Your task to perform on an android device: set an alarm Image 0: 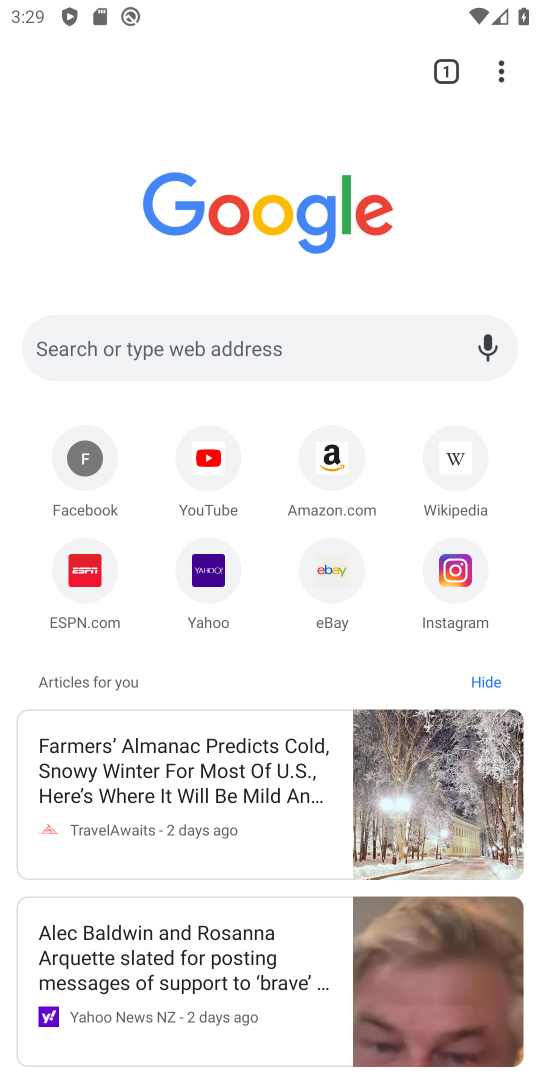
Step 0: press home button
Your task to perform on an android device: set an alarm Image 1: 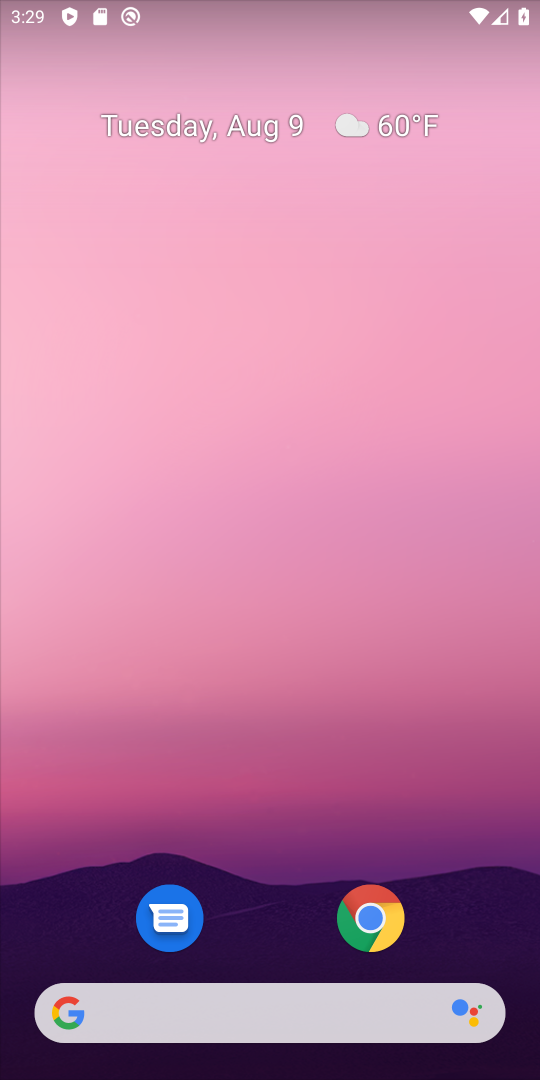
Step 1: drag from (264, 991) to (282, 112)
Your task to perform on an android device: set an alarm Image 2: 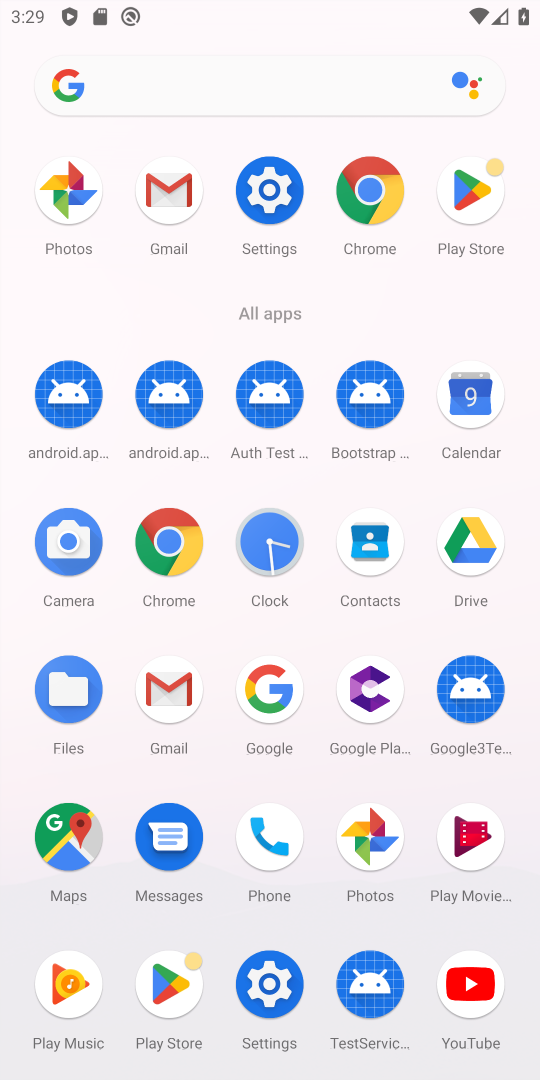
Step 2: click (275, 565)
Your task to perform on an android device: set an alarm Image 3: 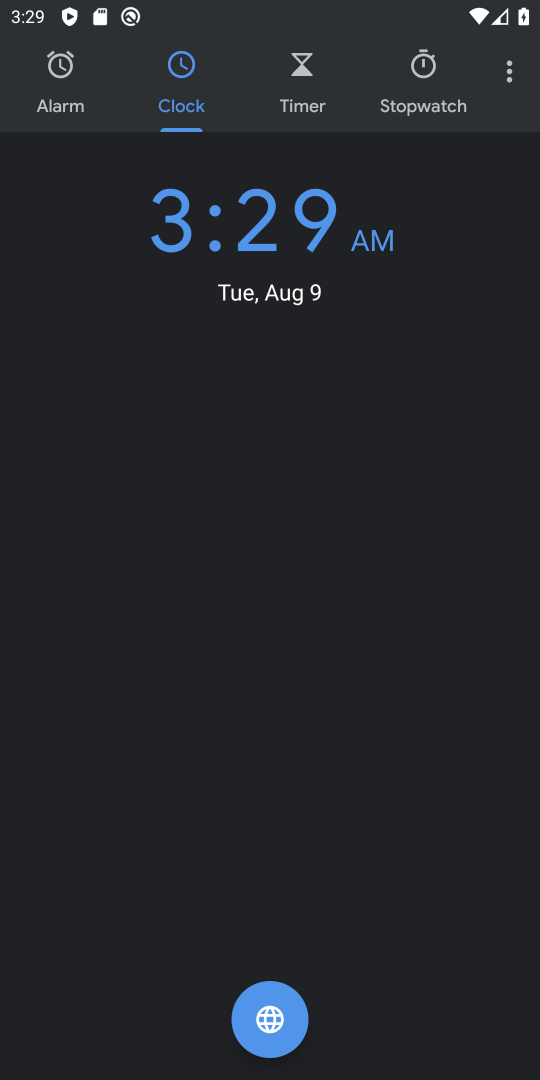
Step 3: click (63, 93)
Your task to perform on an android device: set an alarm Image 4: 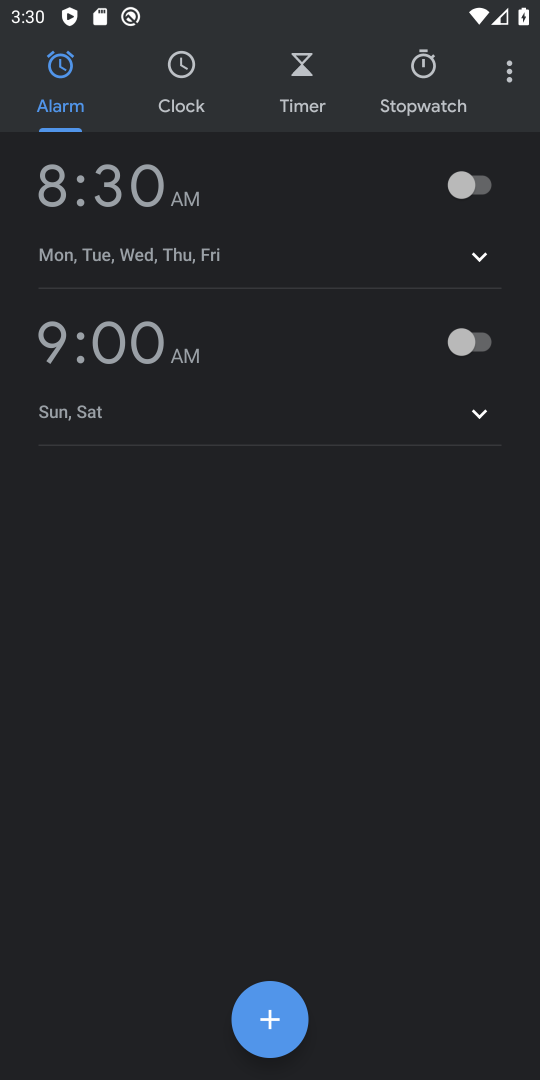
Step 4: click (263, 981)
Your task to perform on an android device: set an alarm Image 5: 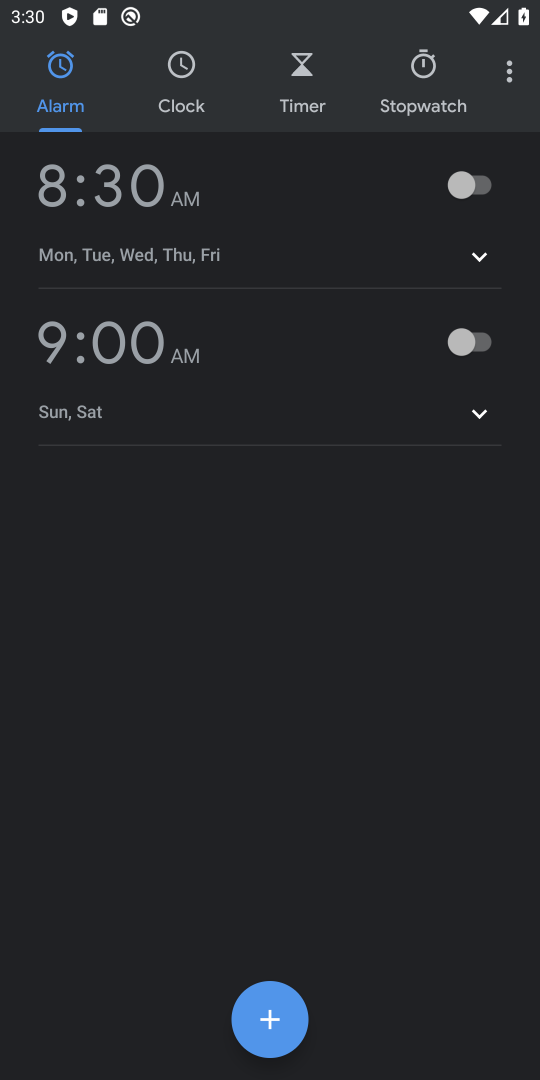
Step 5: click (242, 1037)
Your task to perform on an android device: set an alarm Image 6: 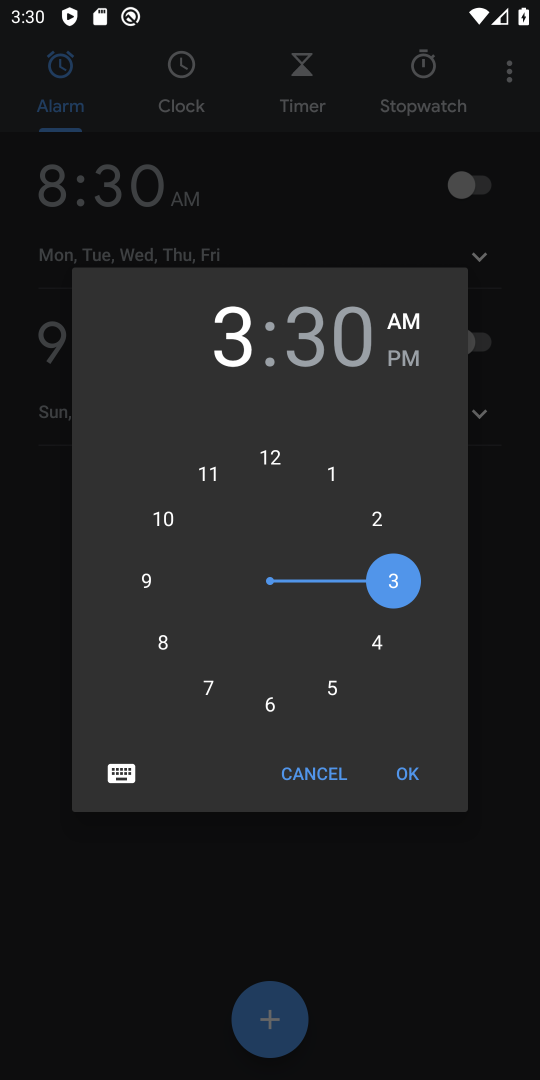
Step 6: click (388, 777)
Your task to perform on an android device: set an alarm Image 7: 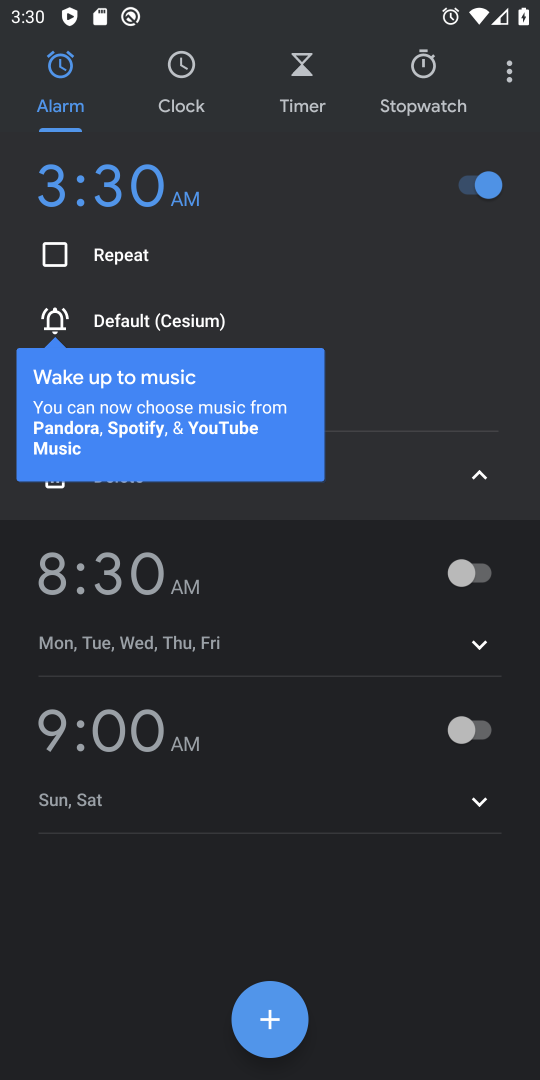
Step 7: task complete